Your task to perform on an android device: Open wifi settings Image 0: 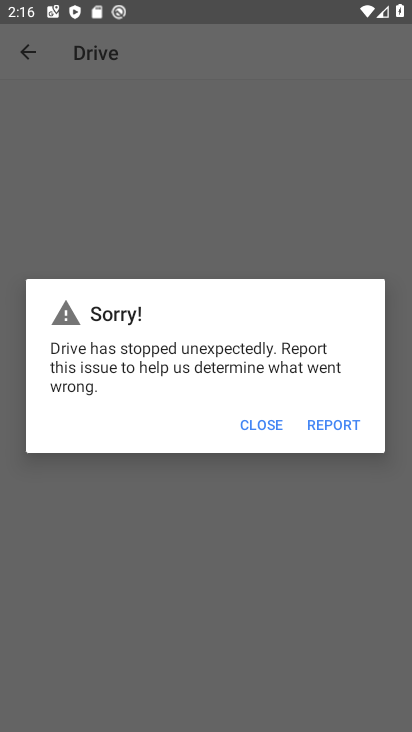
Step 0: press home button
Your task to perform on an android device: Open wifi settings Image 1: 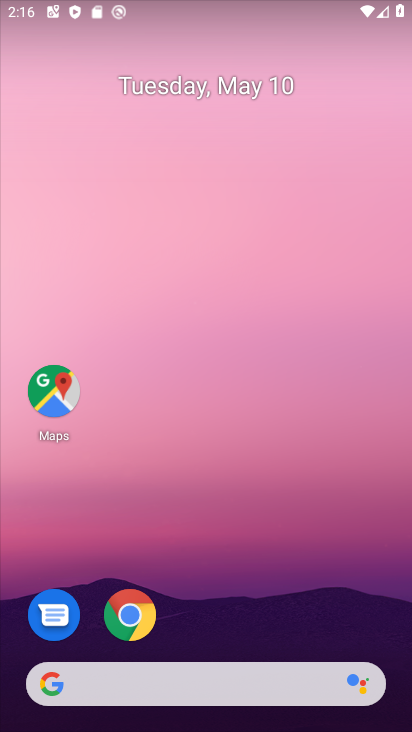
Step 1: drag from (80, 8) to (73, 440)
Your task to perform on an android device: Open wifi settings Image 2: 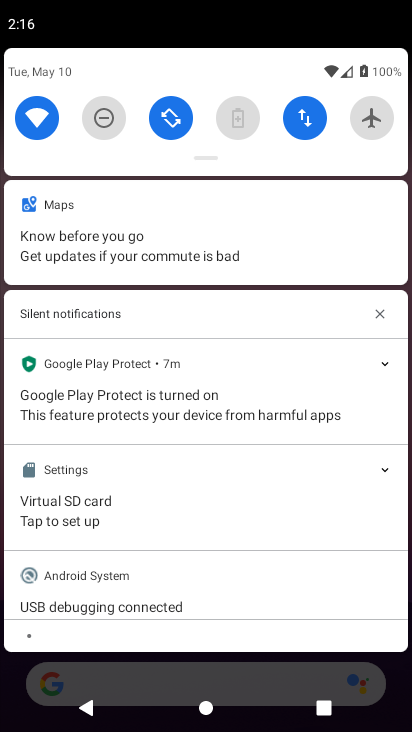
Step 2: click (41, 130)
Your task to perform on an android device: Open wifi settings Image 3: 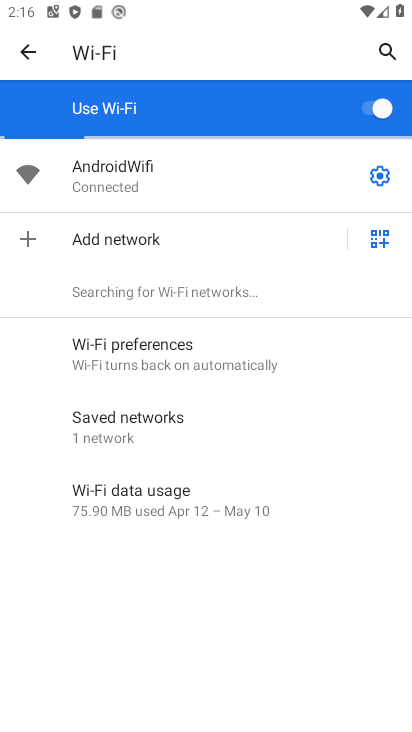
Step 3: task complete